Your task to perform on an android device: change notifications settings Image 0: 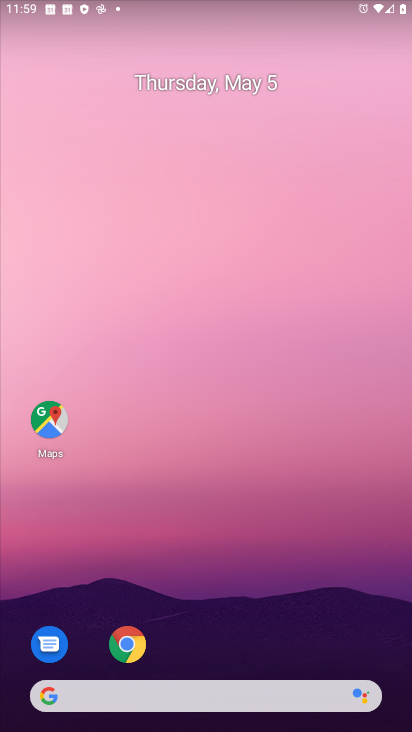
Step 0: drag from (172, 634) to (202, 228)
Your task to perform on an android device: change notifications settings Image 1: 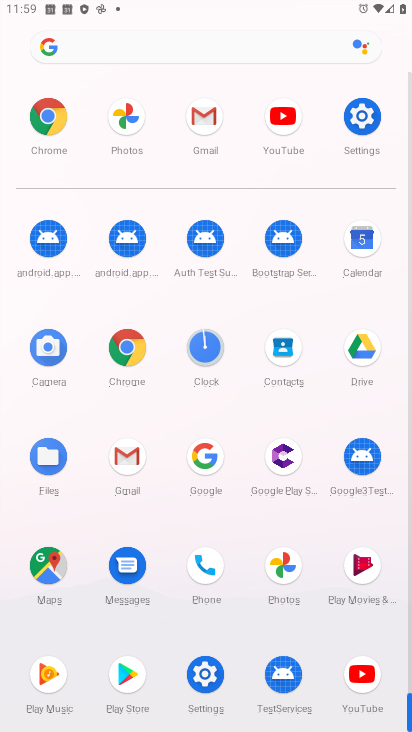
Step 1: click (351, 123)
Your task to perform on an android device: change notifications settings Image 2: 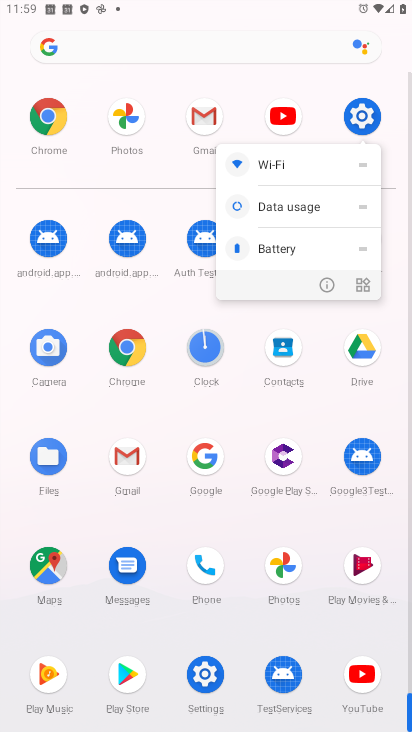
Step 2: click (319, 285)
Your task to perform on an android device: change notifications settings Image 3: 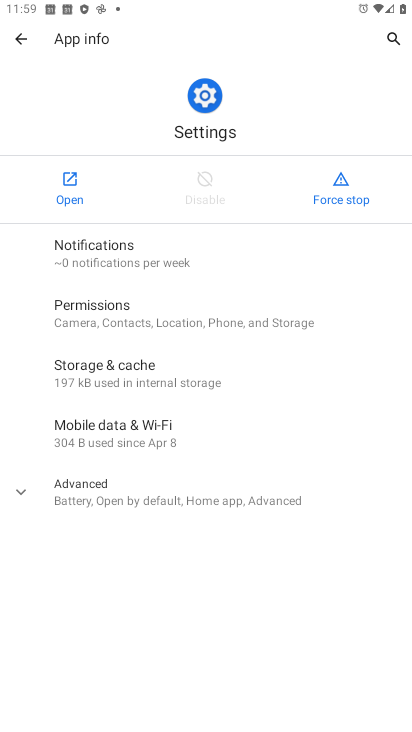
Step 3: click (67, 169)
Your task to perform on an android device: change notifications settings Image 4: 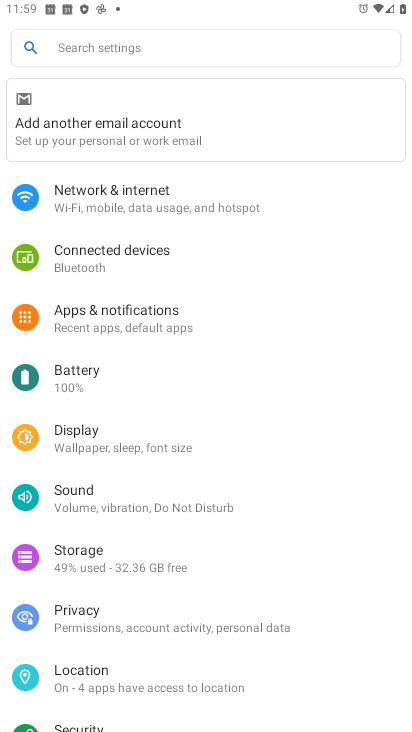
Step 4: drag from (123, 637) to (170, 275)
Your task to perform on an android device: change notifications settings Image 5: 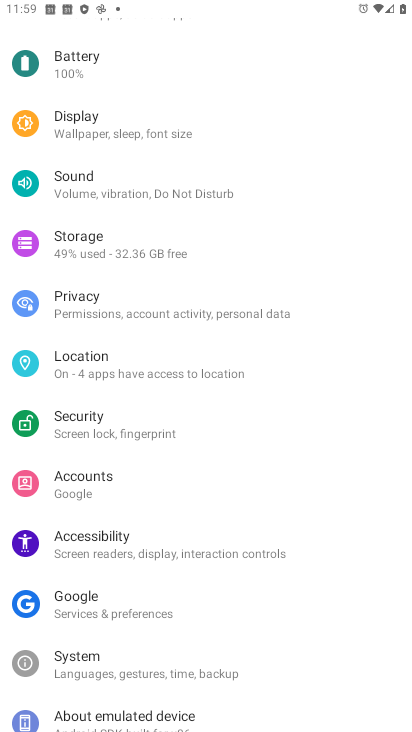
Step 5: drag from (168, 519) to (244, 162)
Your task to perform on an android device: change notifications settings Image 6: 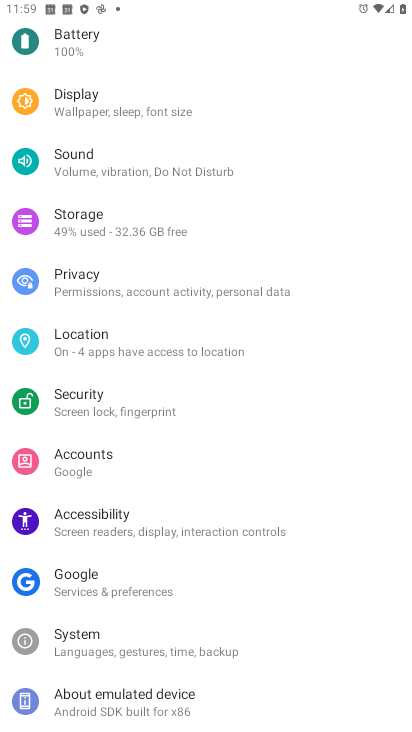
Step 6: drag from (131, 119) to (243, 616)
Your task to perform on an android device: change notifications settings Image 7: 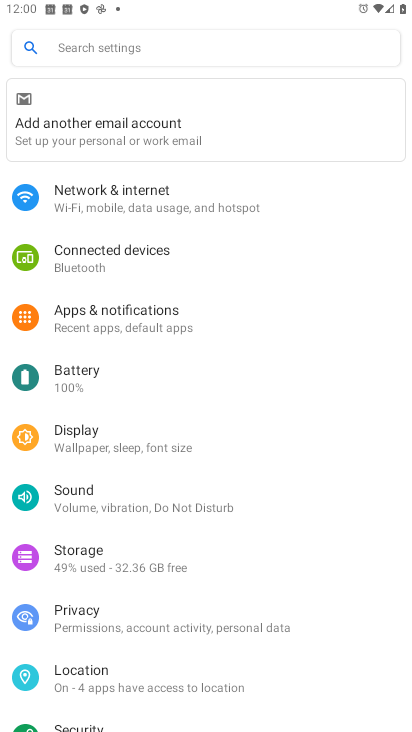
Step 7: click (173, 311)
Your task to perform on an android device: change notifications settings Image 8: 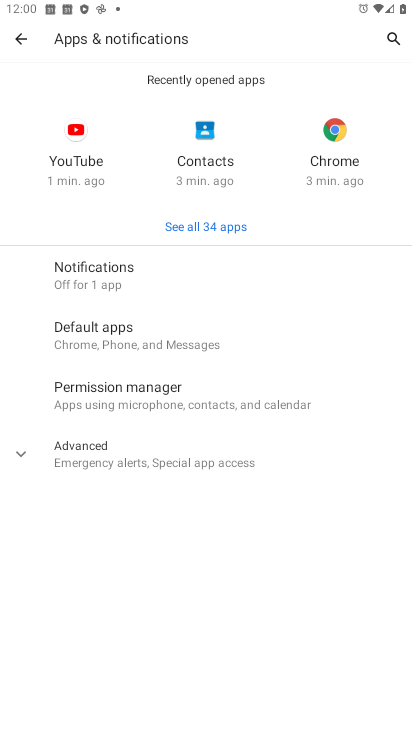
Step 8: drag from (226, 369) to (295, 149)
Your task to perform on an android device: change notifications settings Image 9: 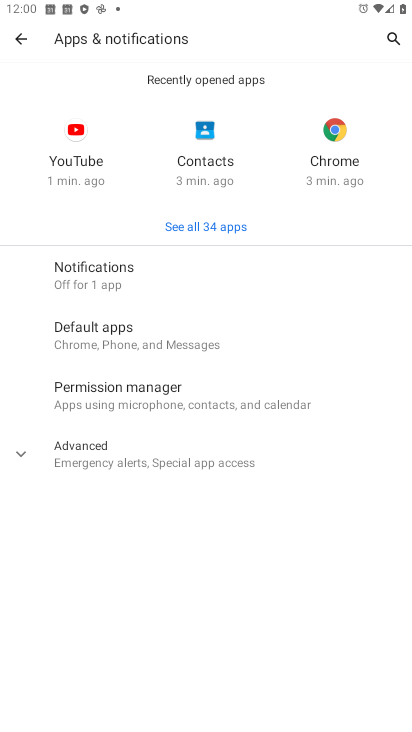
Step 9: drag from (241, 276) to (290, 497)
Your task to perform on an android device: change notifications settings Image 10: 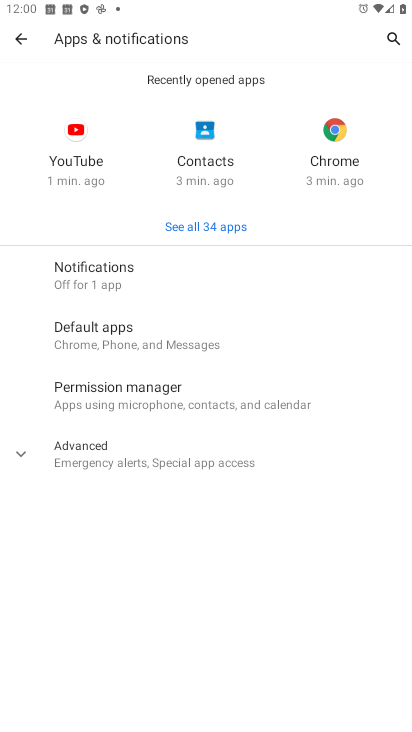
Step 10: drag from (189, 260) to (355, 457)
Your task to perform on an android device: change notifications settings Image 11: 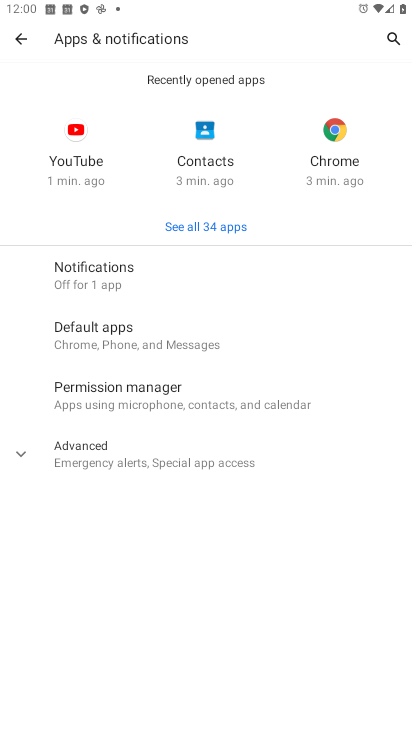
Step 11: drag from (183, 498) to (178, 310)
Your task to perform on an android device: change notifications settings Image 12: 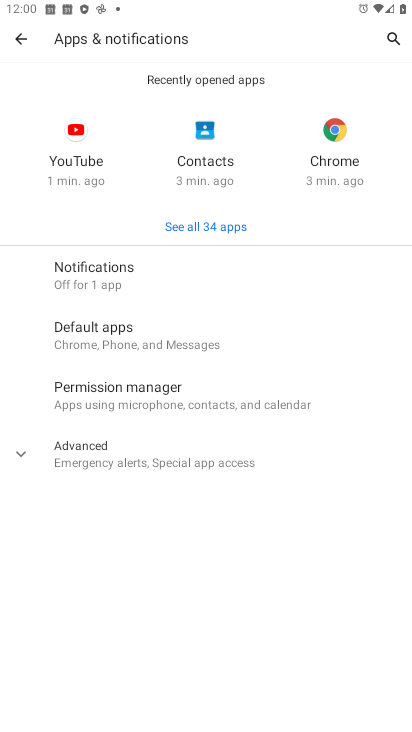
Step 12: drag from (214, 533) to (215, 230)
Your task to perform on an android device: change notifications settings Image 13: 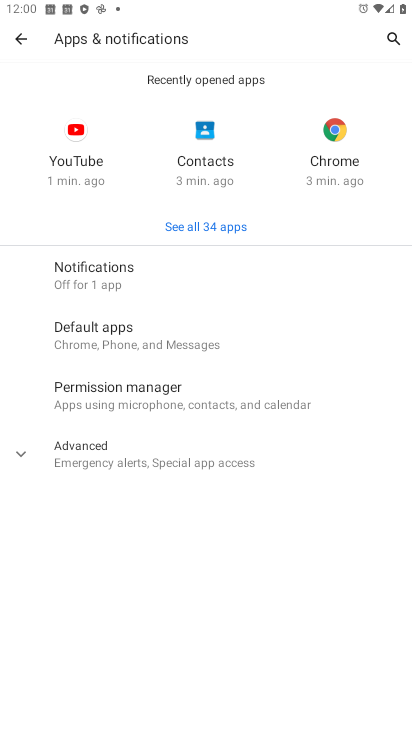
Step 13: drag from (185, 272) to (193, 514)
Your task to perform on an android device: change notifications settings Image 14: 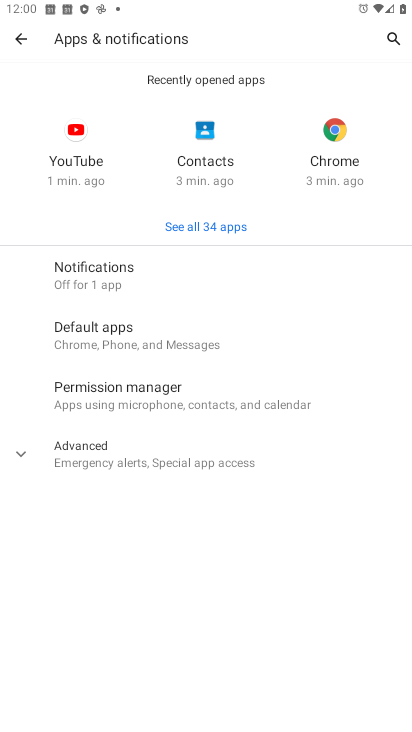
Step 14: drag from (199, 268) to (239, 564)
Your task to perform on an android device: change notifications settings Image 15: 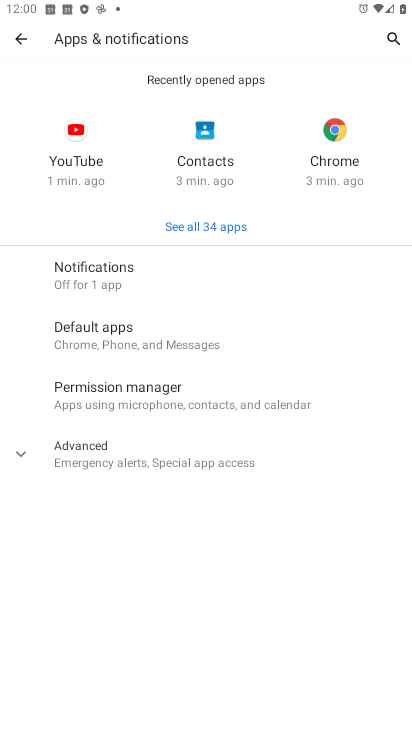
Step 15: drag from (207, 250) to (202, 534)
Your task to perform on an android device: change notifications settings Image 16: 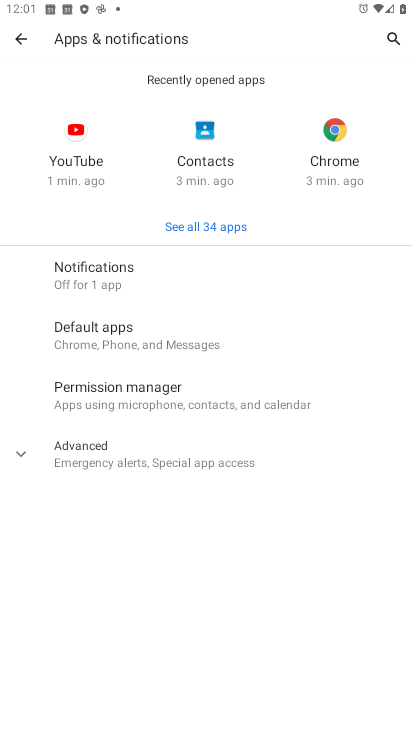
Step 16: click (197, 275)
Your task to perform on an android device: change notifications settings Image 17: 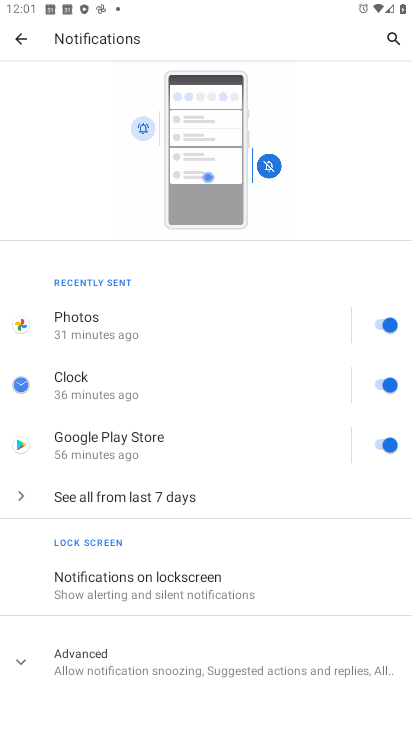
Step 17: drag from (235, 616) to (258, 336)
Your task to perform on an android device: change notifications settings Image 18: 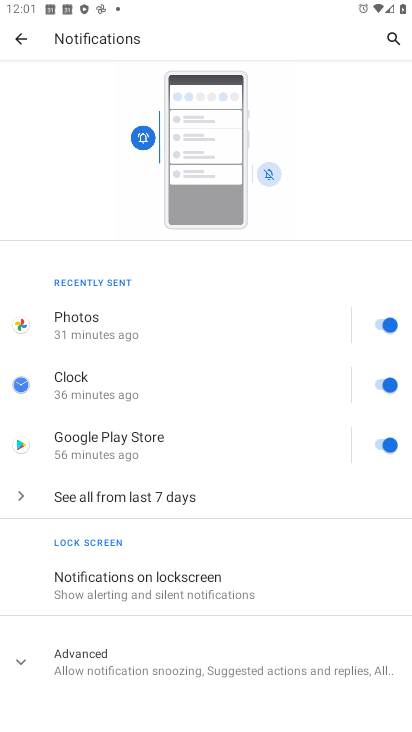
Step 18: drag from (219, 607) to (251, 327)
Your task to perform on an android device: change notifications settings Image 19: 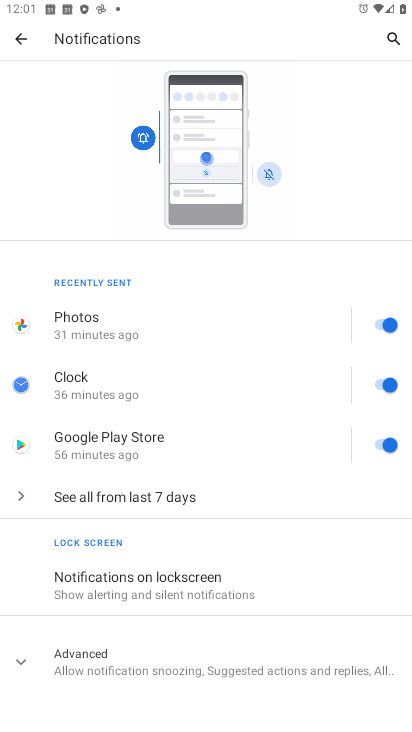
Step 19: drag from (221, 620) to (244, 325)
Your task to perform on an android device: change notifications settings Image 20: 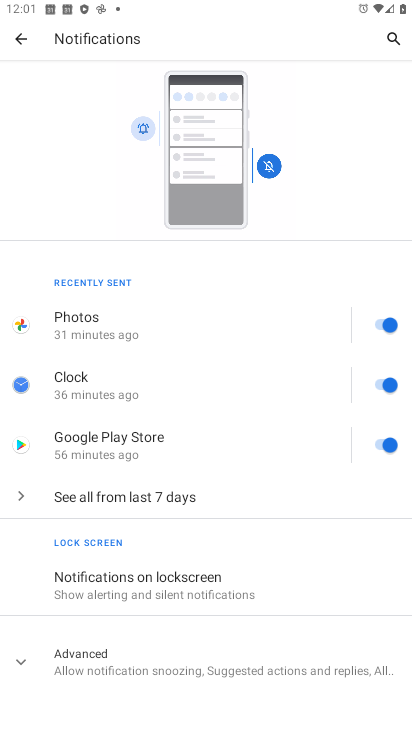
Step 20: drag from (205, 654) to (251, 309)
Your task to perform on an android device: change notifications settings Image 21: 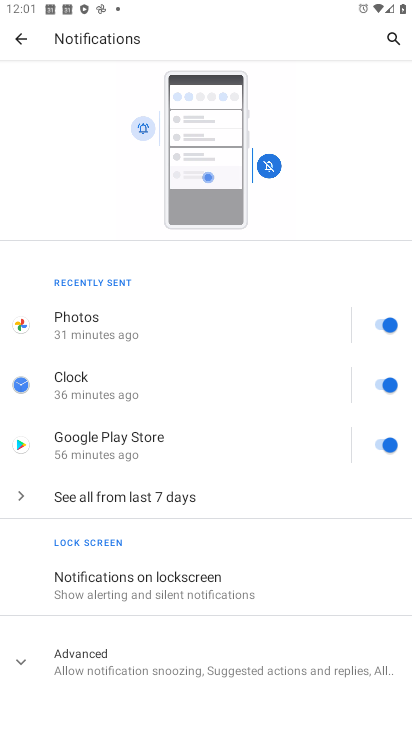
Step 21: drag from (247, 607) to (247, 335)
Your task to perform on an android device: change notifications settings Image 22: 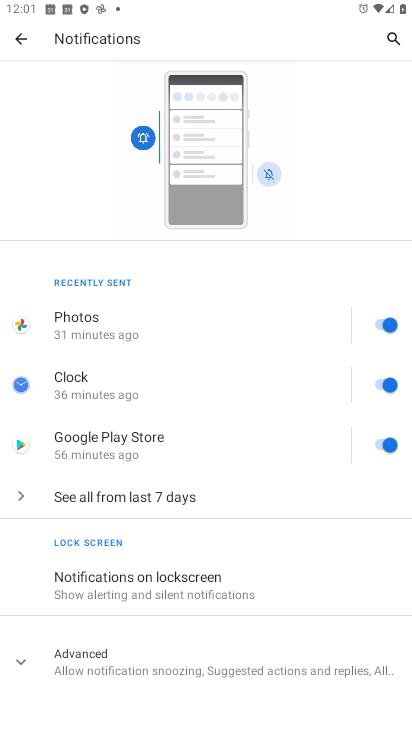
Step 22: drag from (243, 531) to (297, 288)
Your task to perform on an android device: change notifications settings Image 23: 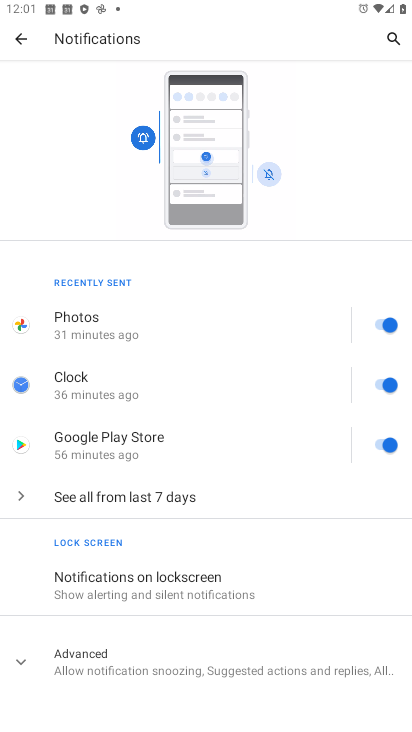
Step 23: click (392, 325)
Your task to perform on an android device: change notifications settings Image 24: 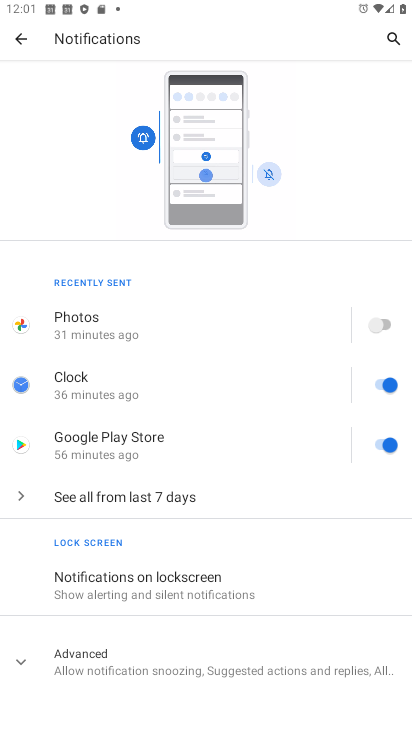
Step 24: task complete